Your task to perform on an android device: check battery use Image 0: 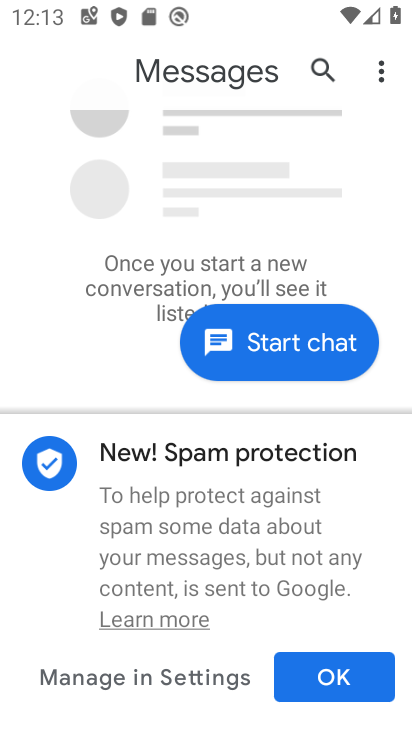
Step 0: press home button
Your task to perform on an android device: check battery use Image 1: 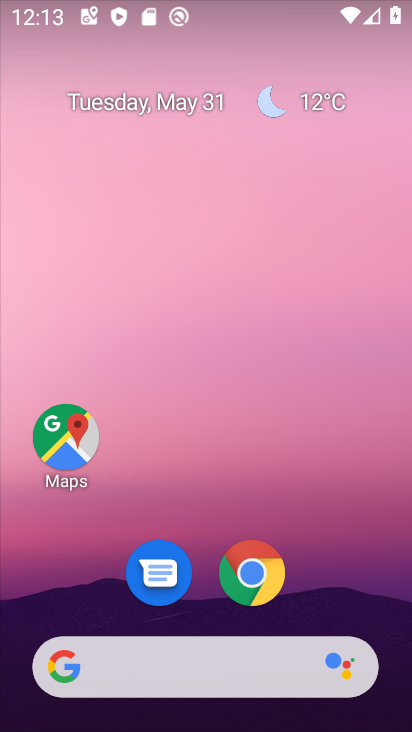
Step 1: drag from (339, 499) to (319, 80)
Your task to perform on an android device: check battery use Image 2: 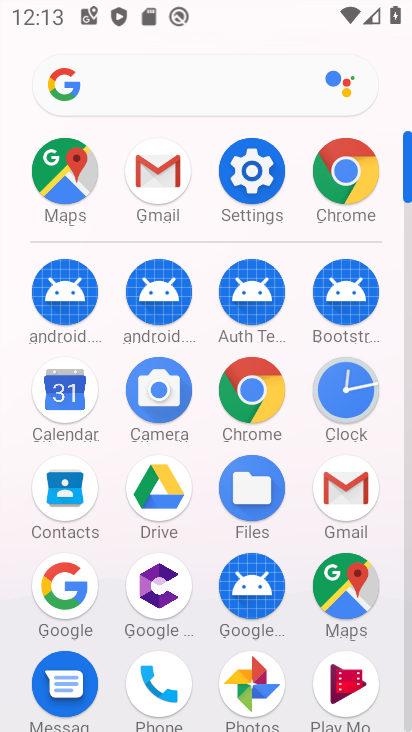
Step 2: click (268, 165)
Your task to perform on an android device: check battery use Image 3: 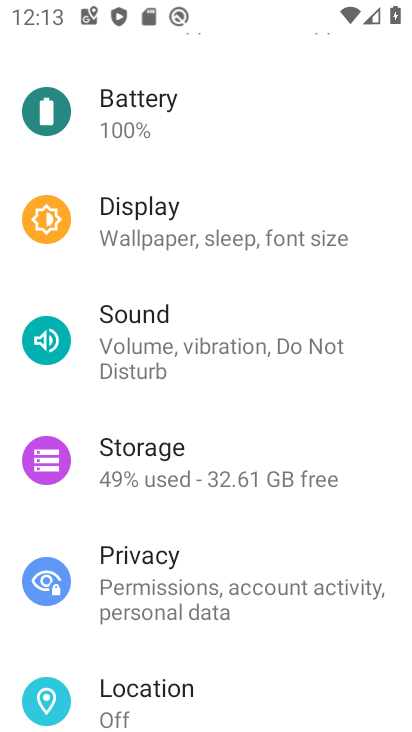
Step 3: drag from (189, 677) to (179, 310)
Your task to perform on an android device: check battery use Image 4: 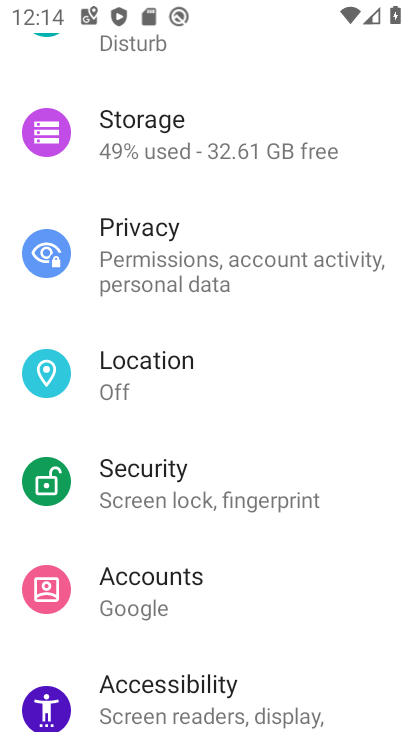
Step 4: drag from (230, 642) to (265, 261)
Your task to perform on an android device: check battery use Image 5: 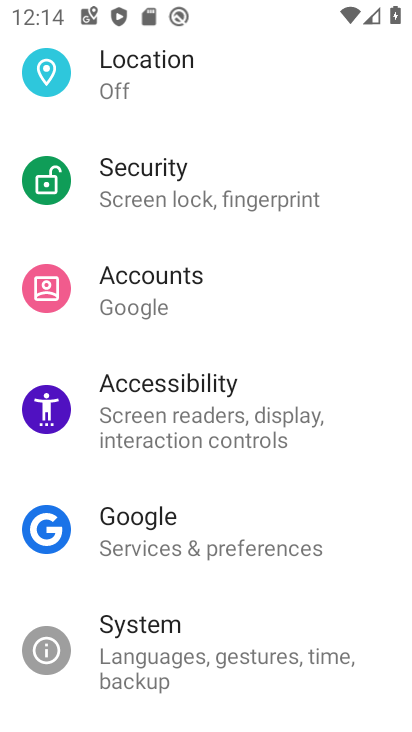
Step 5: drag from (284, 602) to (320, 297)
Your task to perform on an android device: check battery use Image 6: 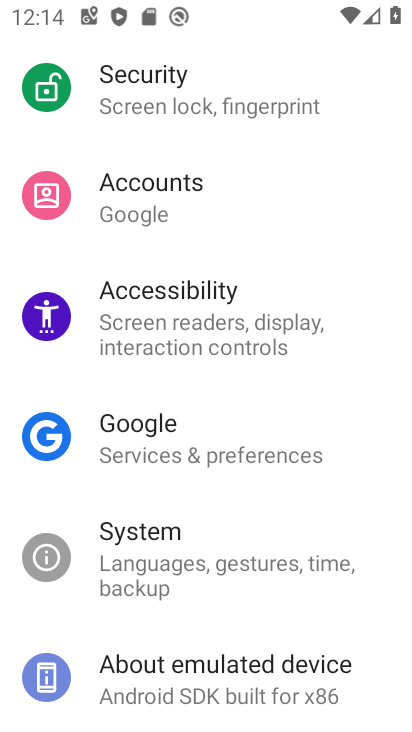
Step 6: drag from (274, 221) to (311, 575)
Your task to perform on an android device: check battery use Image 7: 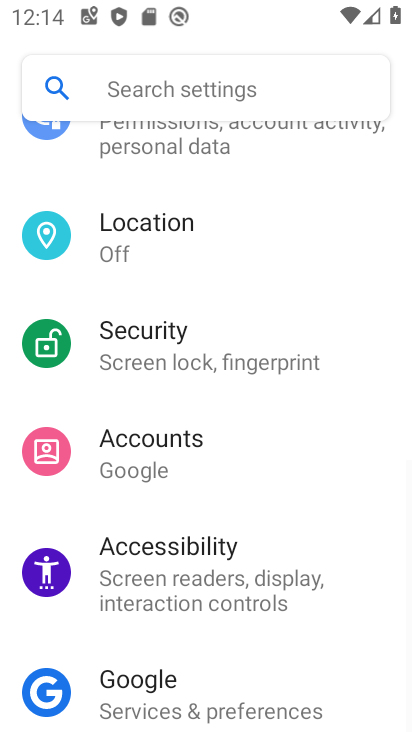
Step 7: drag from (304, 244) to (370, 698)
Your task to perform on an android device: check battery use Image 8: 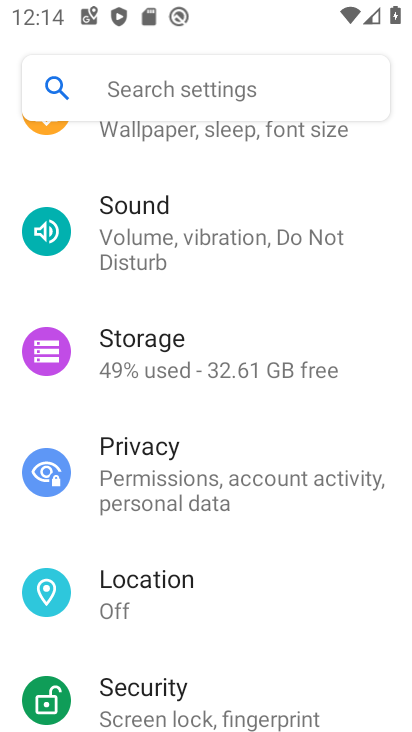
Step 8: drag from (271, 334) to (307, 657)
Your task to perform on an android device: check battery use Image 9: 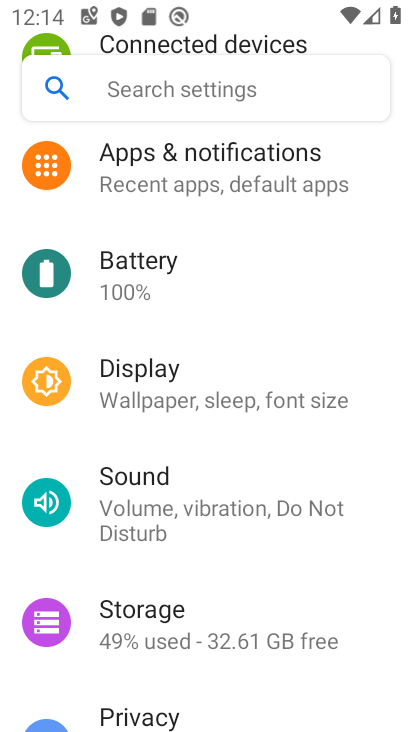
Step 9: click (148, 255)
Your task to perform on an android device: check battery use Image 10: 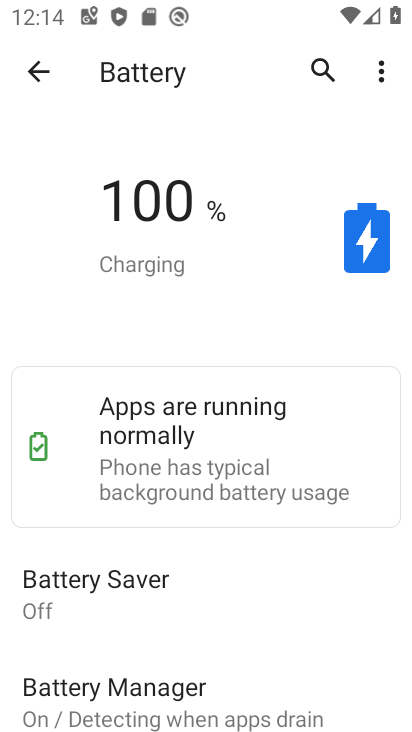
Step 10: task complete